Your task to perform on an android device: toggle airplane mode Image 0: 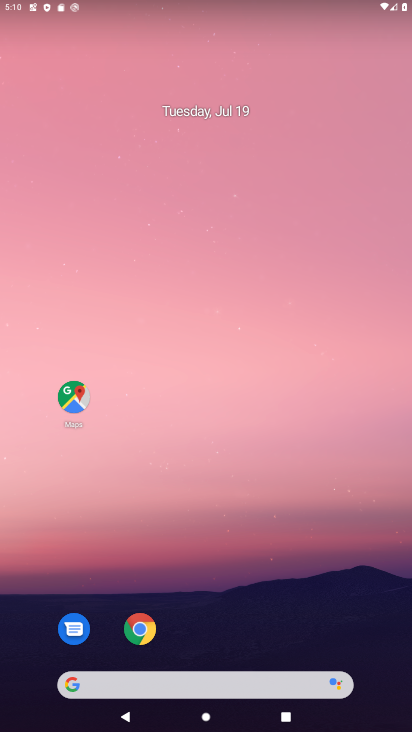
Step 0: press home button
Your task to perform on an android device: toggle airplane mode Image 1: 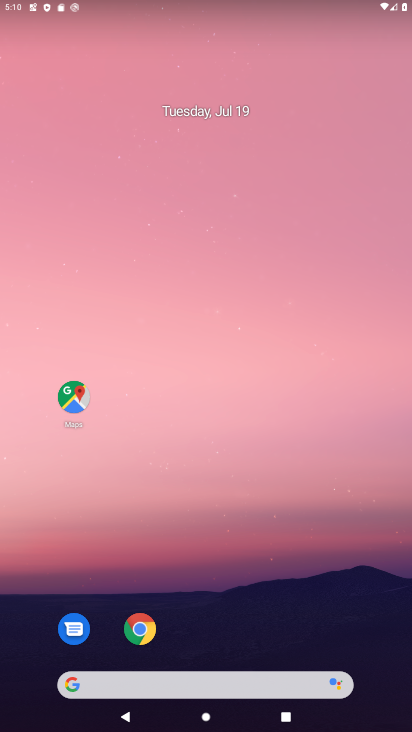
Step 1: drag from (214, 4) to (147, 643)
Your task to perform on an android device: toggle airplane mode Image 2: 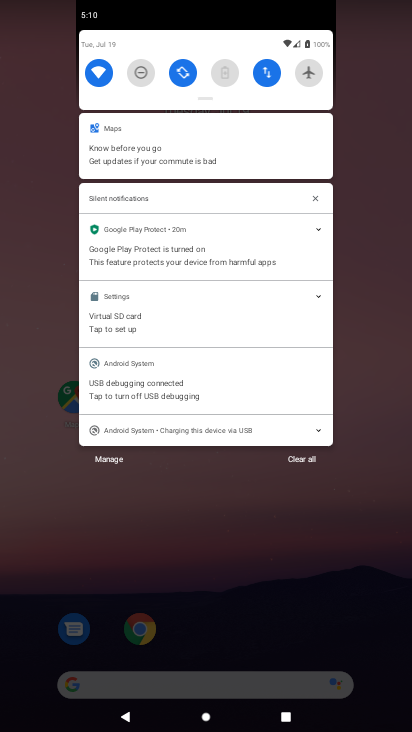
Step 2: click (317, 71)
Your task to perform on an android device: toggle airplane mode Image 3: 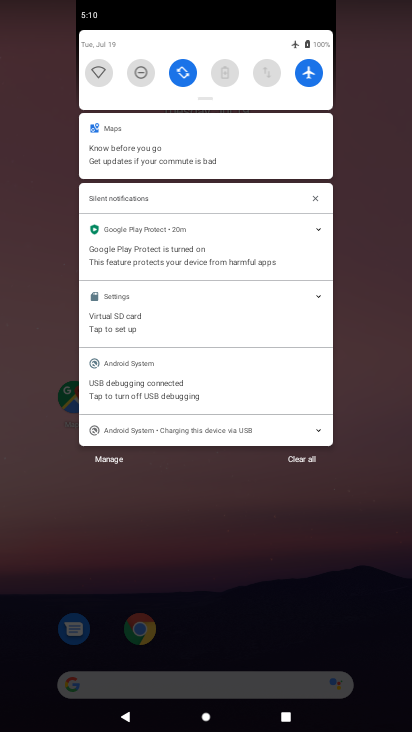
Step 3: task complete